Your task to perform on an android device: set the stopwatch Image 0: 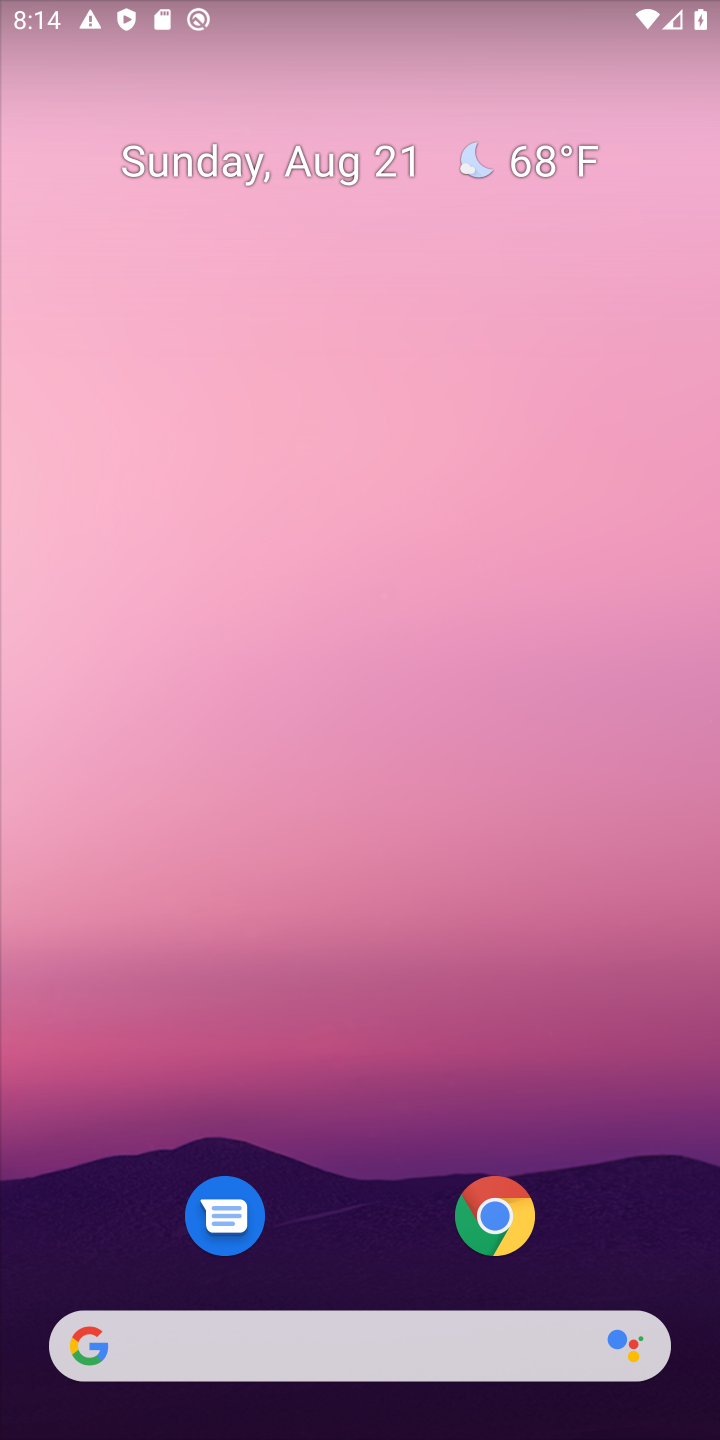
Step 0: drag from (418, 991) to (694, 10)
Your task to perform on an android device: set the stopwatch Image 1: 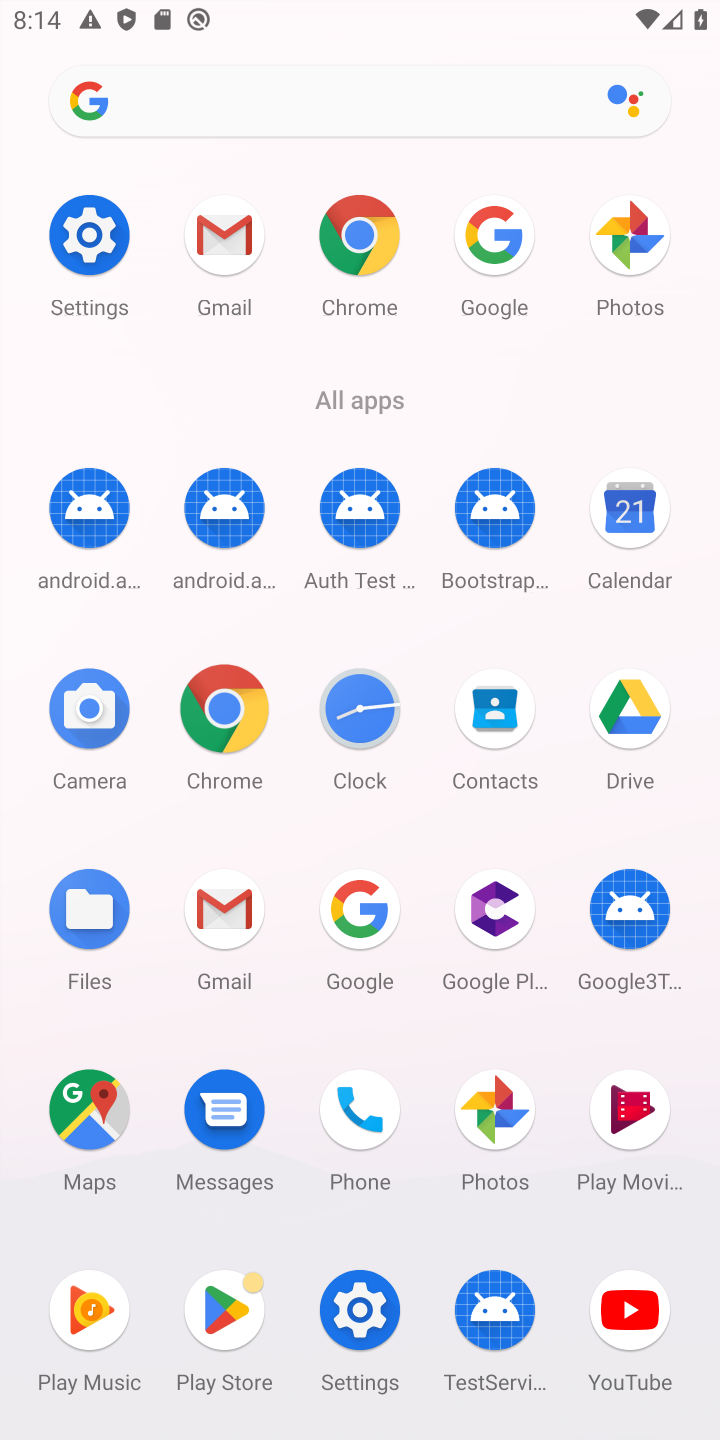
Step 1: click (362, 701)
Your task to perform on an android device: set the stopwatch Image 2: 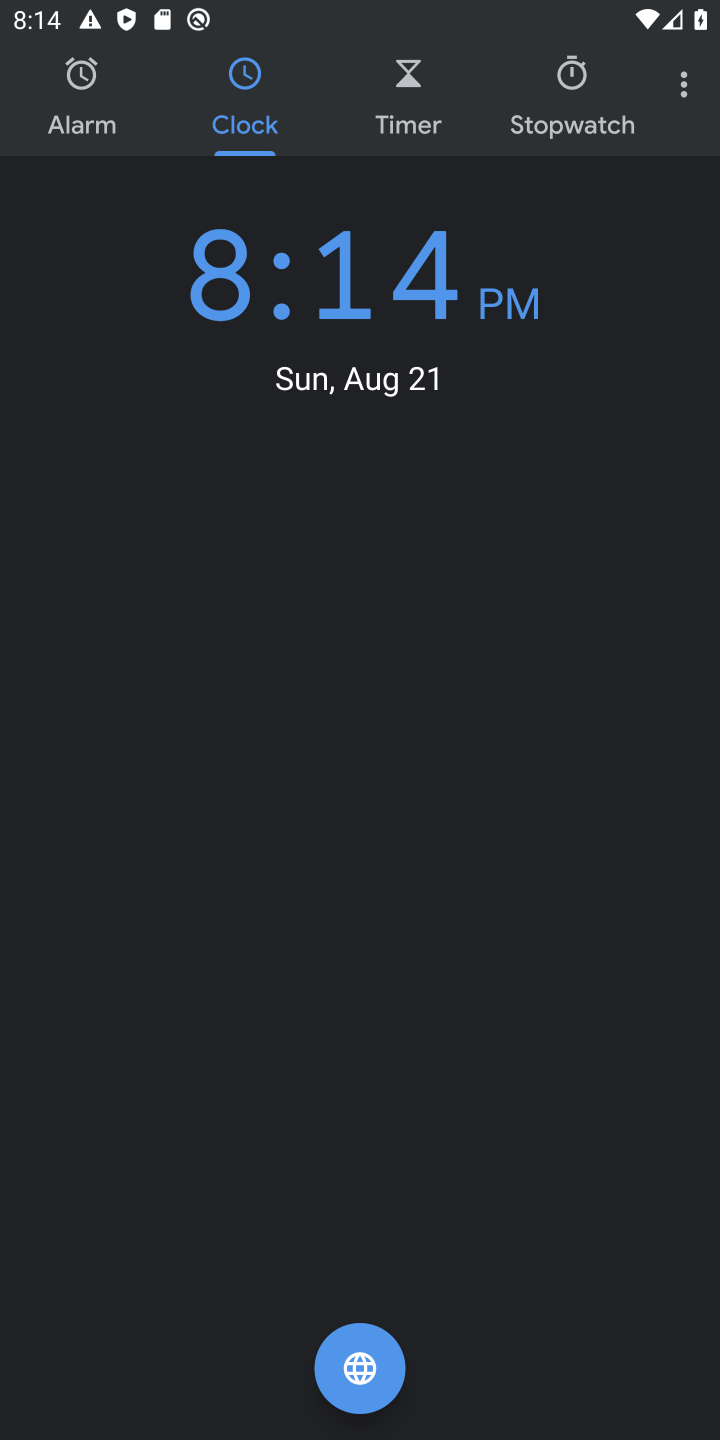
Step 2: click (579, 80)
Your task to perform on an android device: set the stopwatch Image 3: 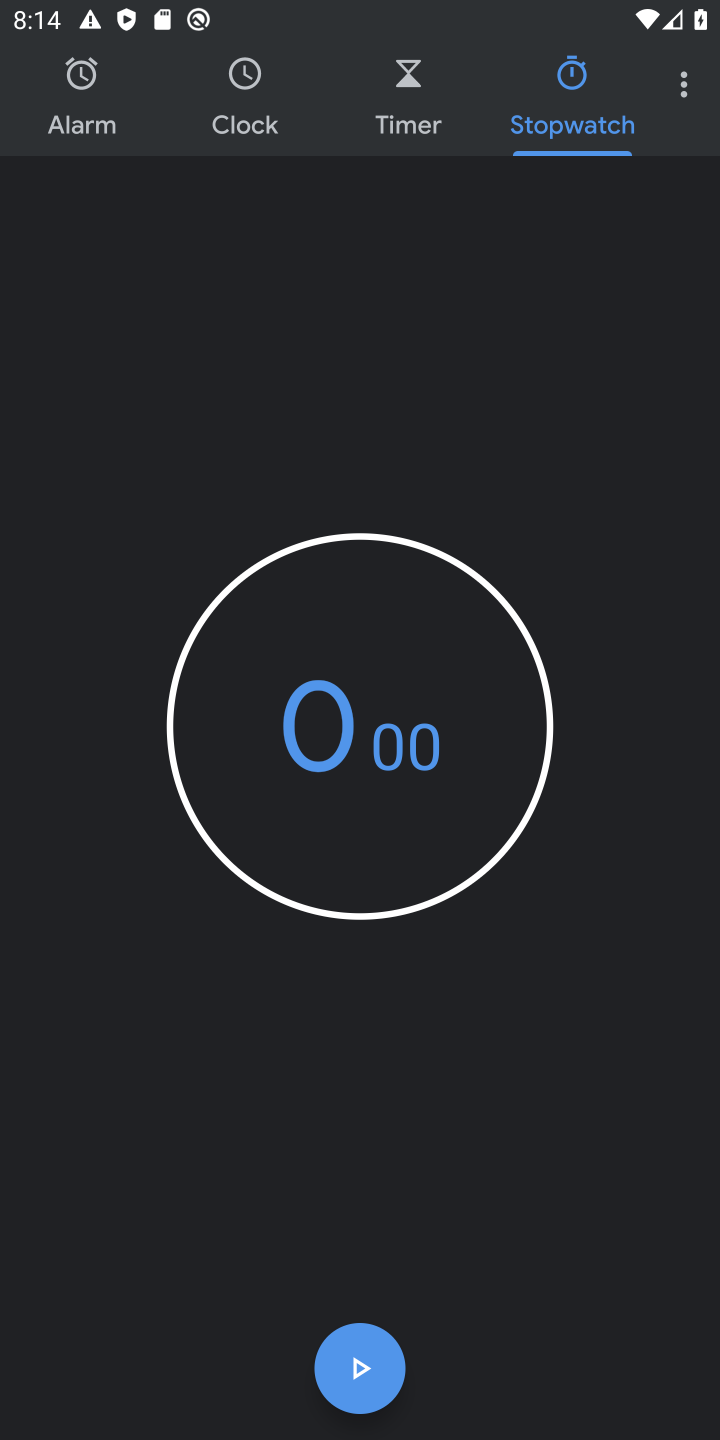
Step 3: click (359, 1346)
Your task to perform on an android device: set the stopwatch Image 4: 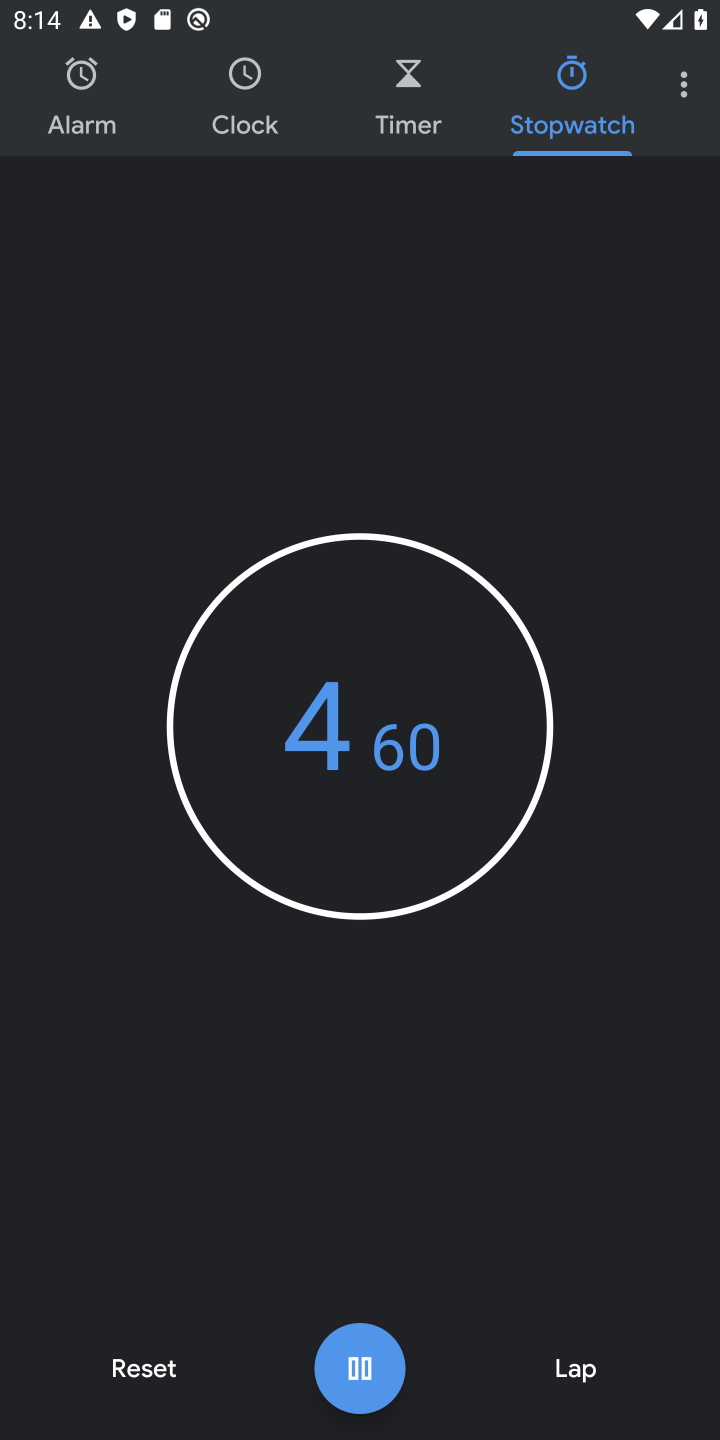
Step 4: task complete